Your task to perform on an android device: Go to sound settings Image 0: 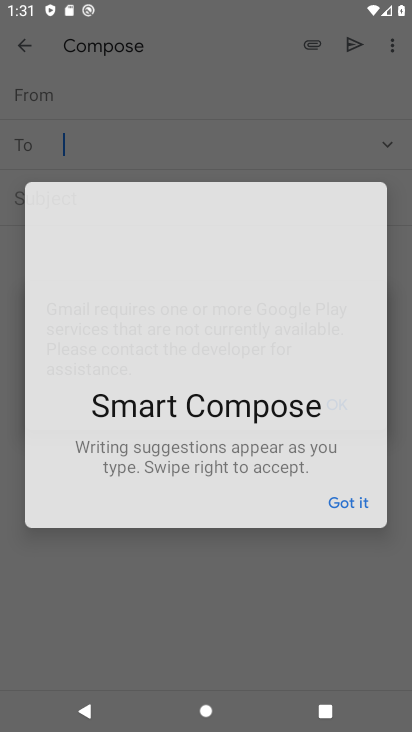
Step 0: press home button
Your task to perform on an android device: Go to sound settings Image 1: 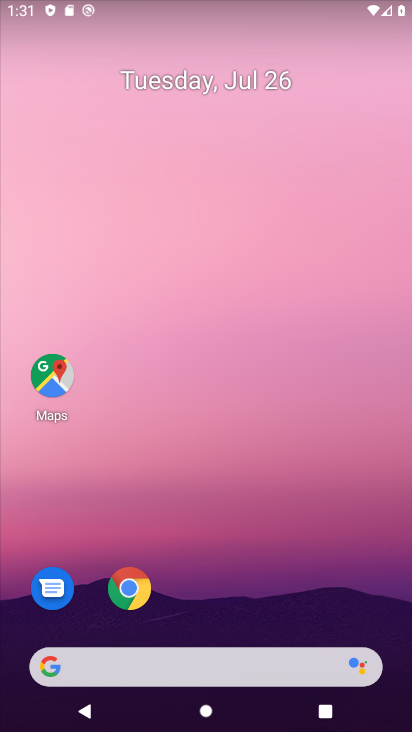
Step 1: drag from (223, 607) to (150, 22)
Your task to perform on an android device: Go to sound settings Image 2: 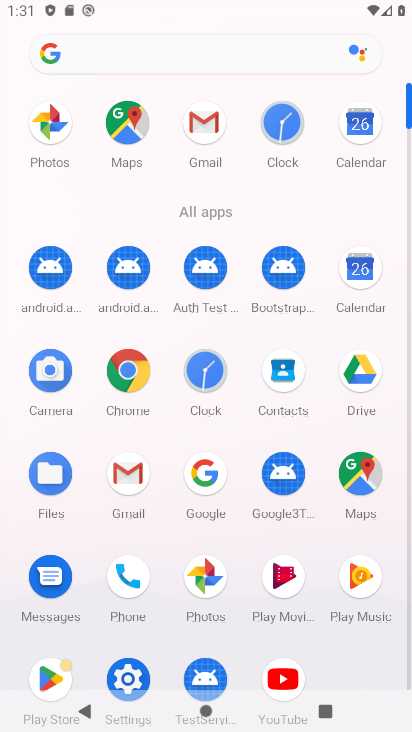
Step 2: click (137, 666)
Your task to perform on an android device: Go to sound settings Image 3: 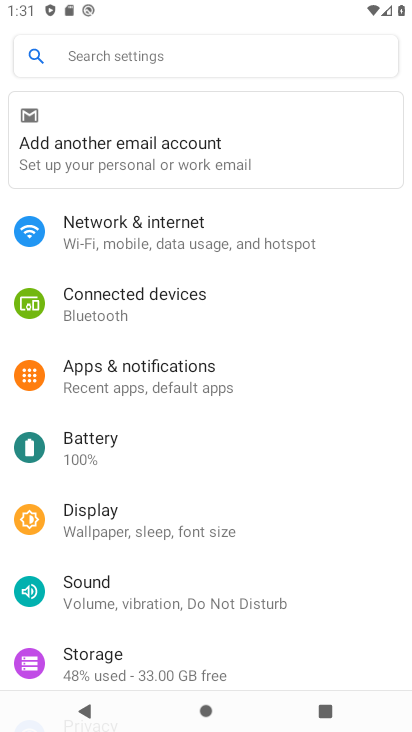
Step 3: click (99, 576)
Your task to perform on an android device: Go to sound settings Image 4: 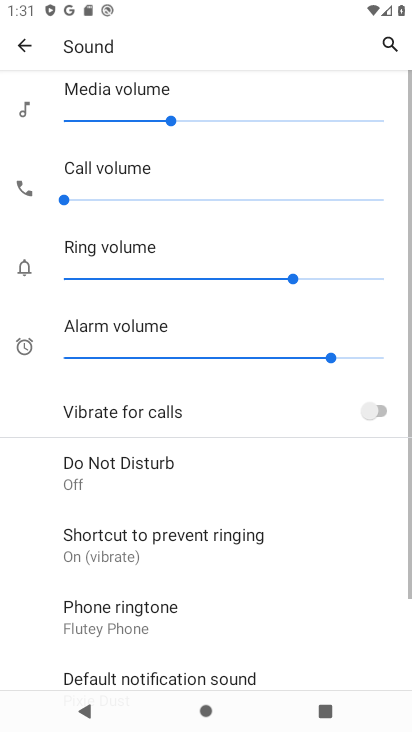
Step 4: drag from (191, 645) to (140, 128)
Your task to perform on an android device: Go to sound settings Image 5: 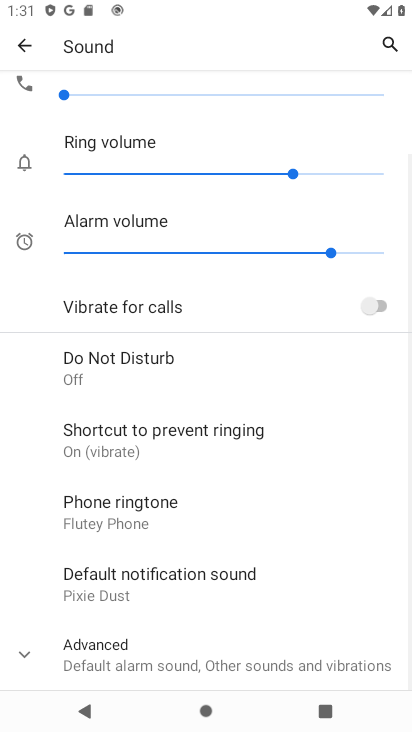
Step 5: click (132, 633)
Your task to perform on an android device: Go to sound settings Image 6: 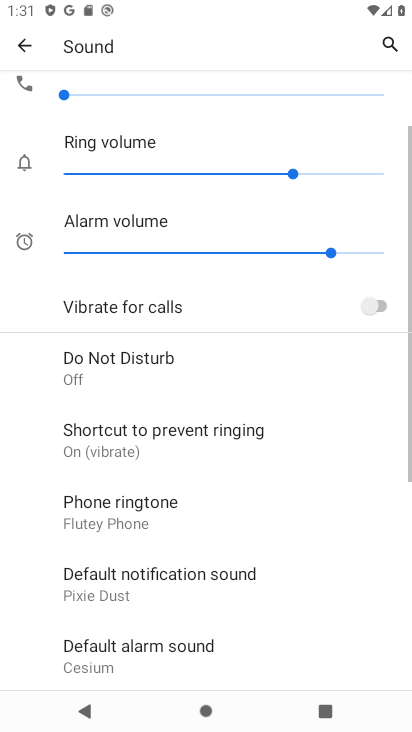
Step 6: task complete